Your task to perform on an android device: Open the calendar app, open the side menu, and click the "Day" option Image 0: 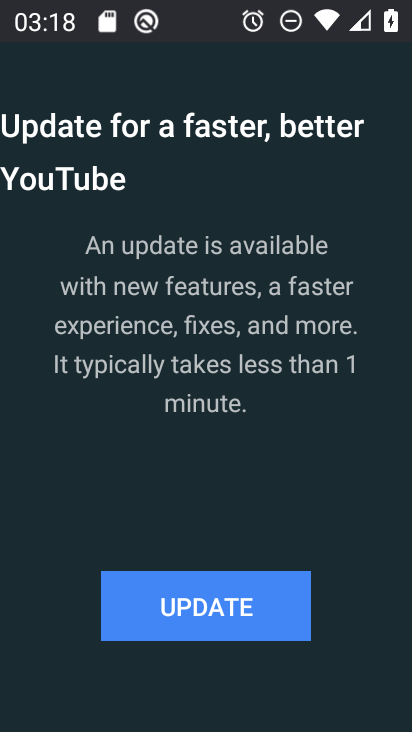
Step 0: press back button
Your task to perform on an android device: Open the calendar app, open the side menu, and click the "Day" option Image 1: 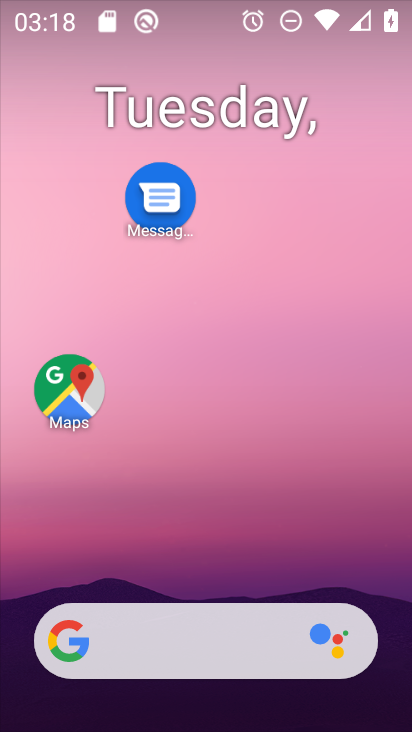
Step 1: drag from (220, 563) to (345, 204)
Your task to perform on an android device: Open the calendar app, open the side menu, and click the "Day" option Image 2: 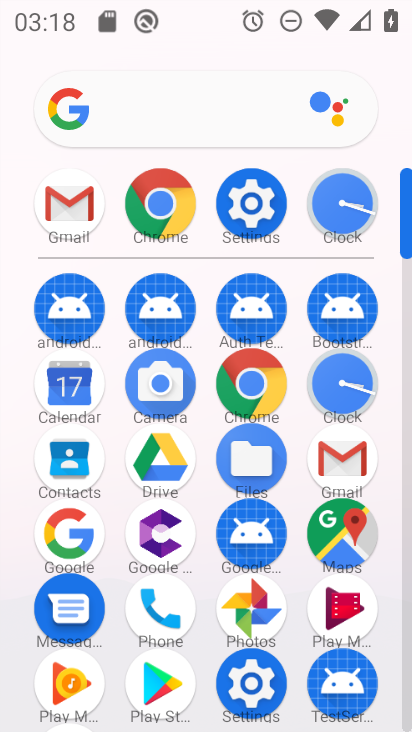
Step 2: click (43, 398)
Your task to perform on an android device: Open the calendar app, open the side menu, and click the "Day" option Image 3: 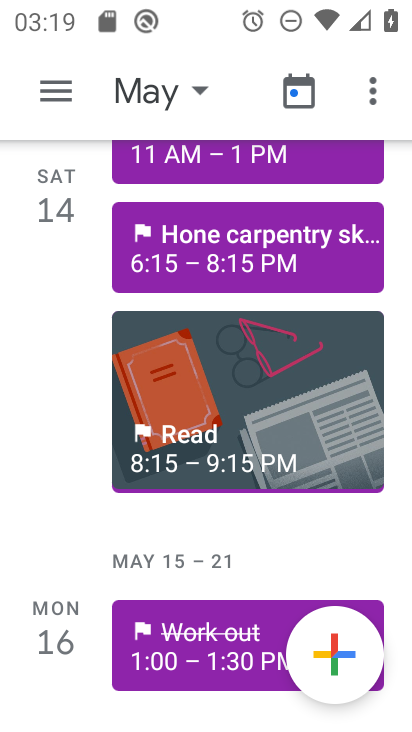
Step 3: click (58, 98)
Your task to perform on an android device: Open the calendar app, open the side menu, and click the "Day" option Image 4: 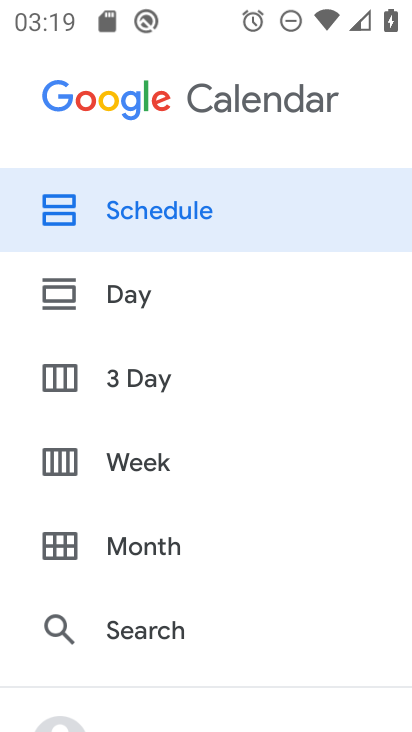
Step 4: click (131, 281)
Your task to perform on an android device: Open the calendar app, open the side menu, and click the "Day" option Image 5: 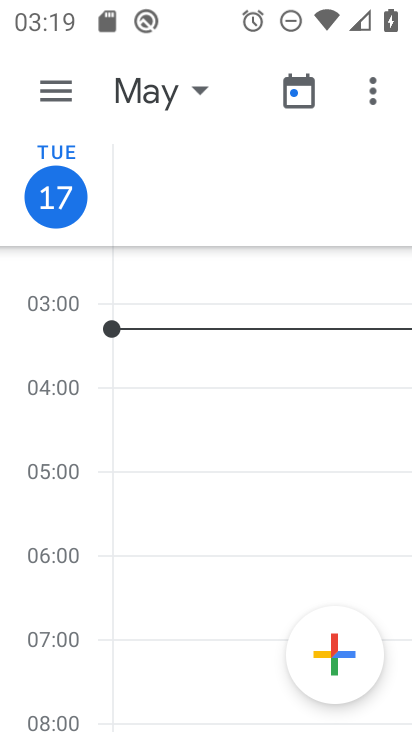
Step 5: task complete